Your task to perform on an android device: Open eBay Image 0: 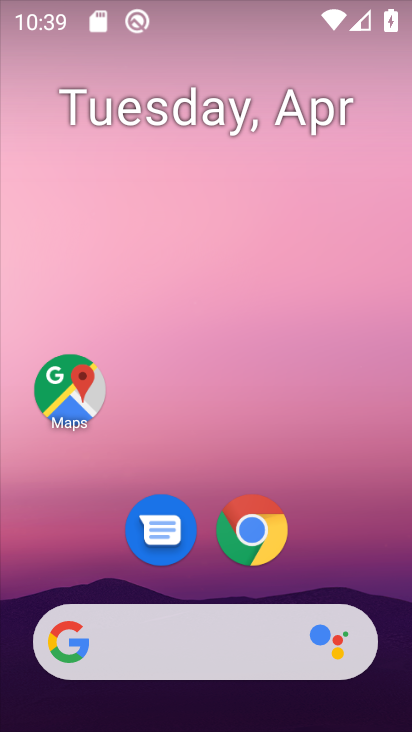
Step 0: drag from (133, 623) to (280, 3)
Your task to perform on an android device: Open eBay Image 1: 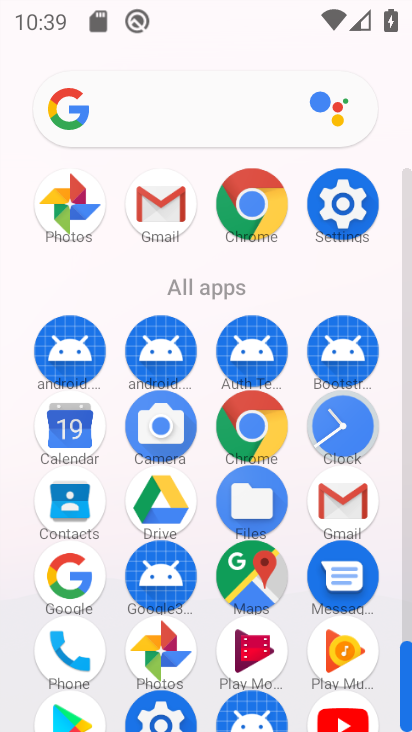
Step 1: click (253, 222)
Your task to perform on an android device: Open eBay Image 2: 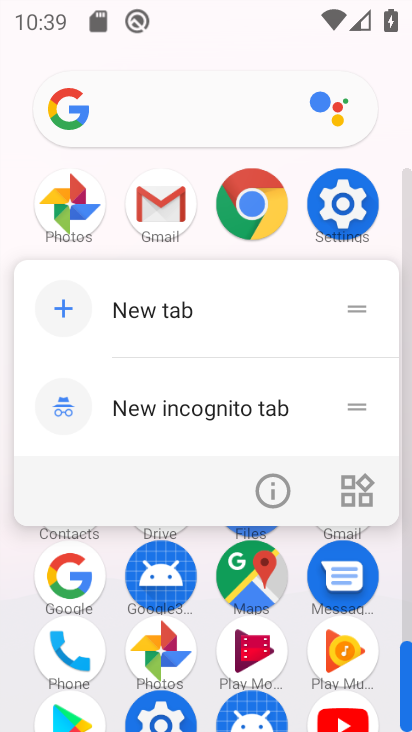
Step 2: click (258, 210)
Your task to perform on an android device: Open eBay Image 3: 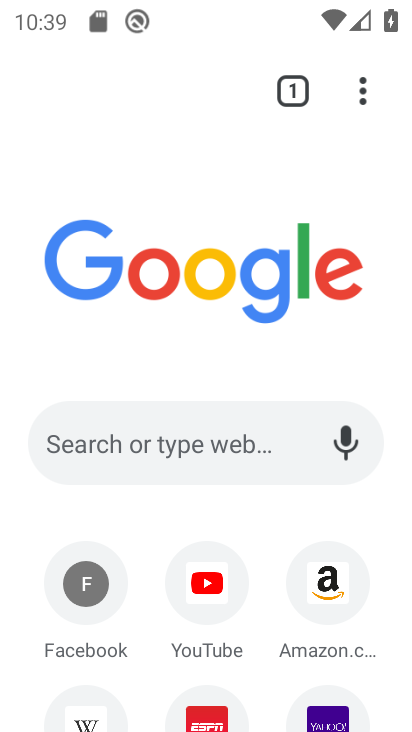
Step 3: click (144, 440)
Your task to perform on an android device: Open eBay Image 4: 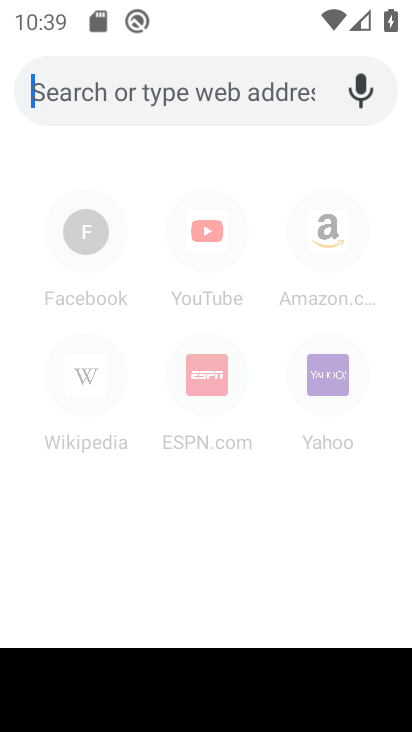
Step 4: type "ebay"
Your task to perform on an android device: Open eBay Image 5: 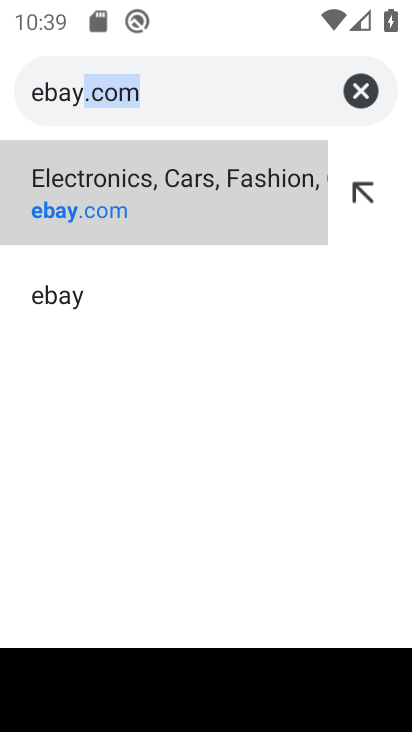
Step 5: click (54, 288)
Your task to perform on an android device: Open eBay Image 6: 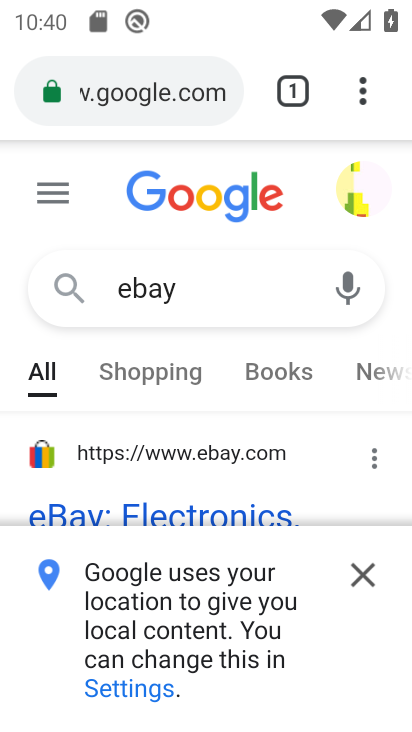
Step 6: click (365, 568)
Your task to perform on an android device: Open eBay Image 7: 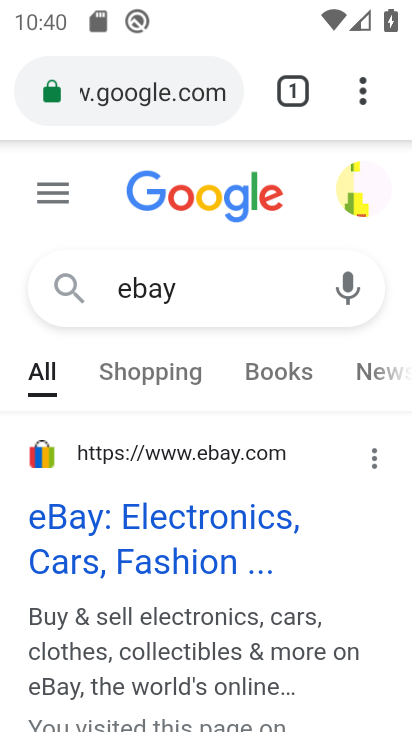
Step 7: click (193, 516)
Your task to perform on an android device: Open eBay Image 8: 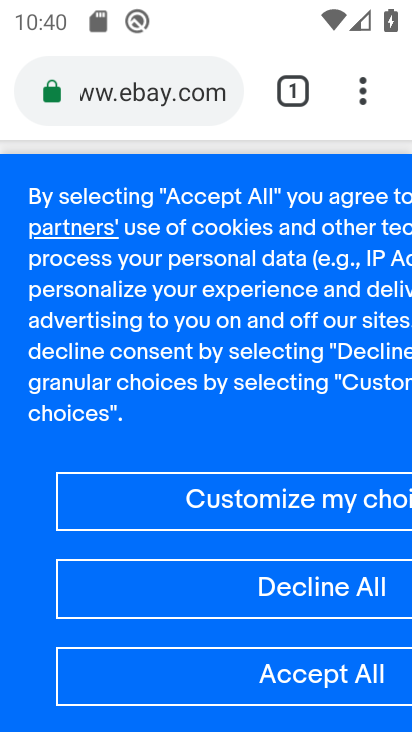
Step 8: task complete